Your task to perform on an android device: Open the Play Movies app and select the watchlist tab. Image 0: 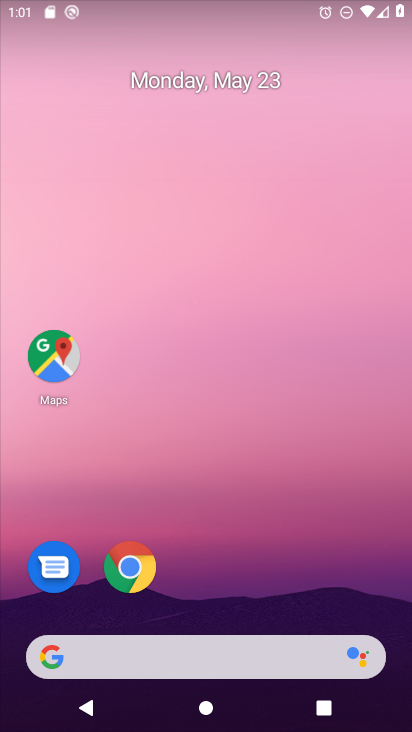
Step 0: drag from (186, 615) to (260, 150)
Your task to perform on an android device: Open the Play Movies app and select the watchlist tab. Image 1: 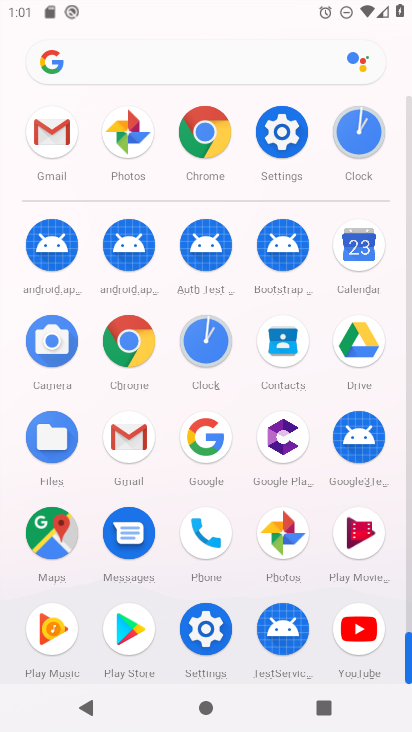
Step 1: click (357, 534)
Your task to perform on an android device: Open the Play Movies app and select the watchlist tab. Image 2: 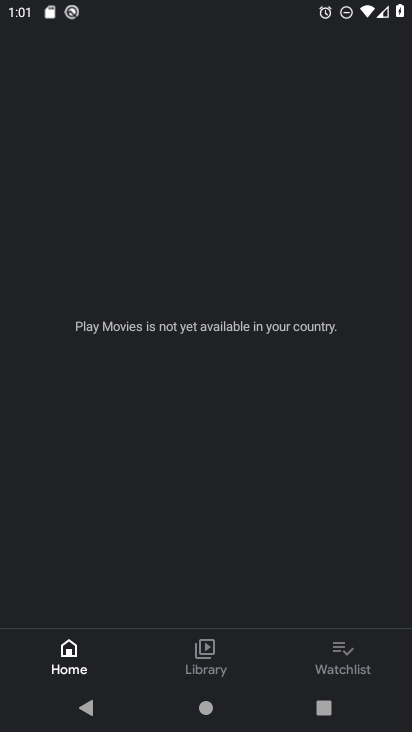
Step 2: click (369, 645)
Your task to perform on an android device: Open the Play Movies app and select the watchlist tab. Image 3: 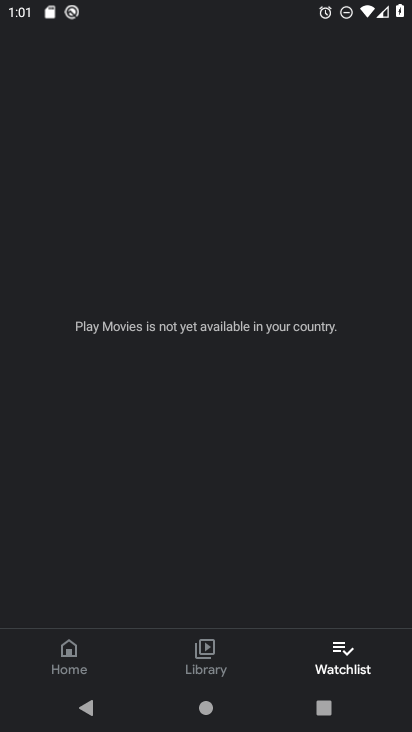
Step 3: task complete